Your task to perform on an android device: turn off translation in the chrome app Image 0: 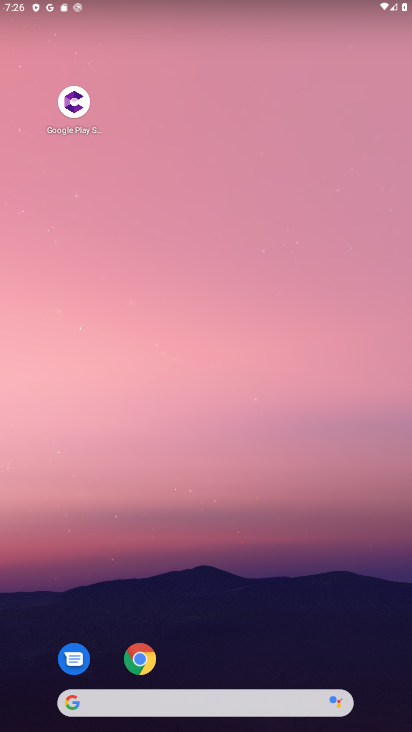
Step 0: click (140, 660)
Your task to perform on an android device: turn off translation in the chrome app Image 1: 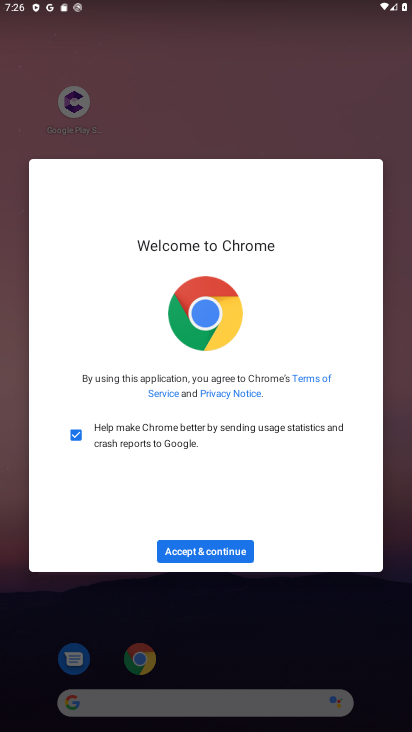
Step 1: click (212, 552)
Your task to perform on an android device: turn off translation in the chrome app Image 2: 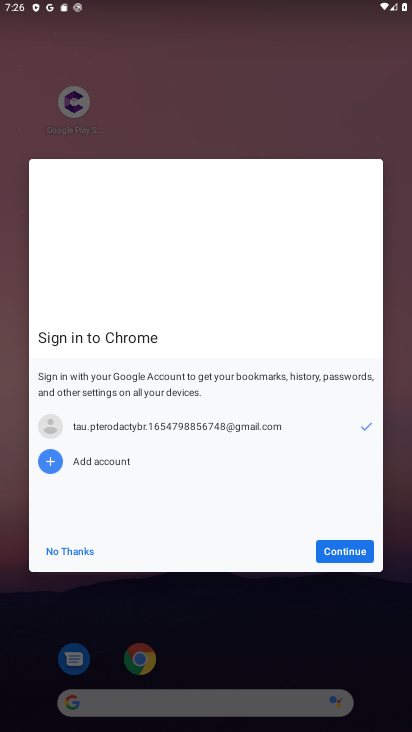
Step 2: click (341, 551)
Your task to perform on an android device: turn off translation in the chrome app Image 3: 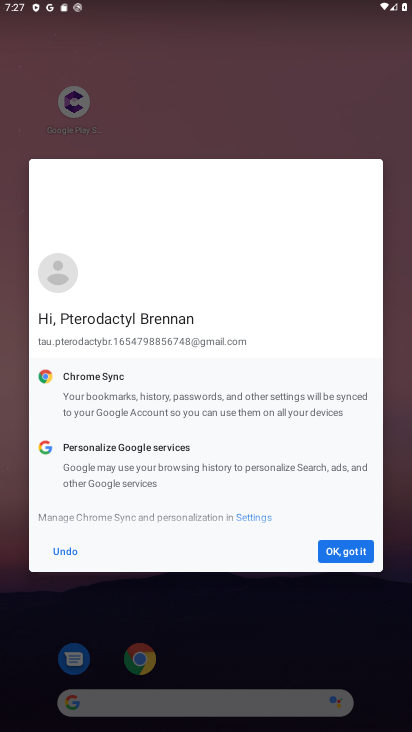
Step 3: click (351, 552)
Your task to perform on an android device: turn off translation in the chrome app Image 4: 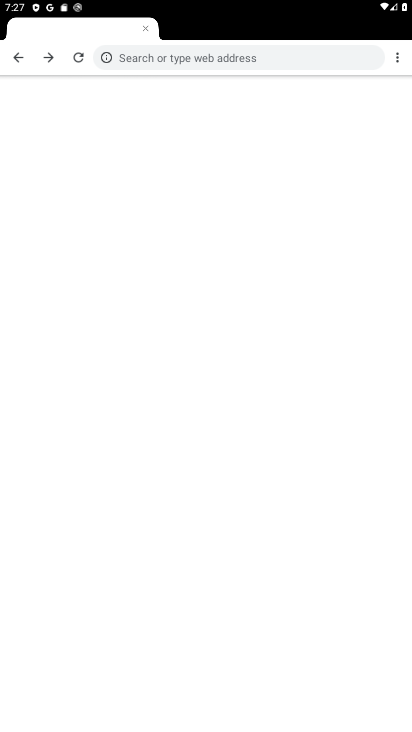
Step 4: click (351, 552)
Your task to perform on an android device: turn off translation in the chrome app Image 5: 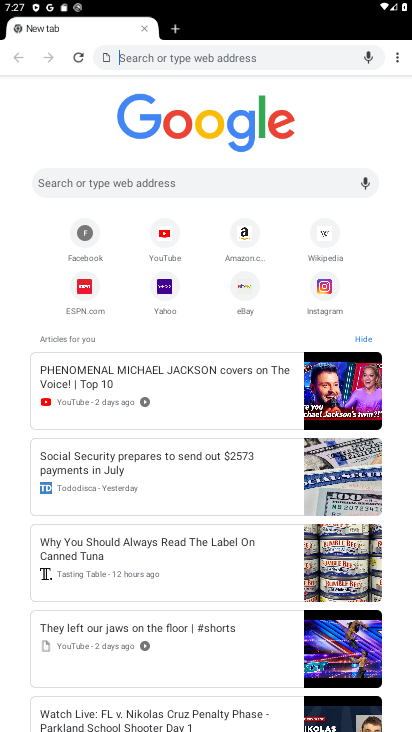
Step 5: click (398, 56)
Your task to perform on an android device: turn off translation in the chrome app Image 6: 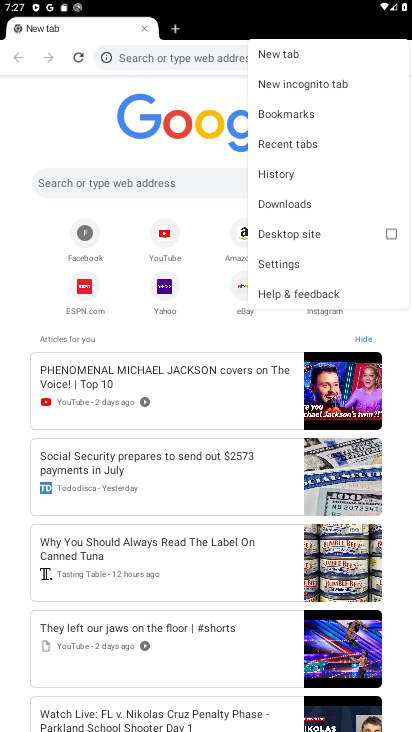
Step 6: click (289, 265)
Your task to perform on an android device: turn off translation in the chrome app Image 7: 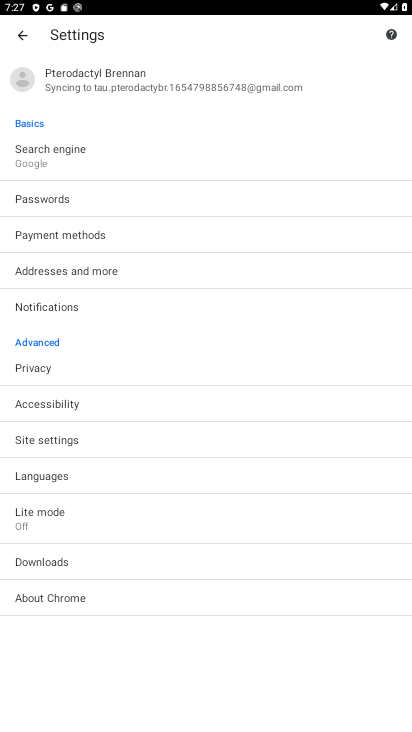
Step 7: click (45, 476)
Your task to perform on an android device: turn off translation in the chrome app Image 8: 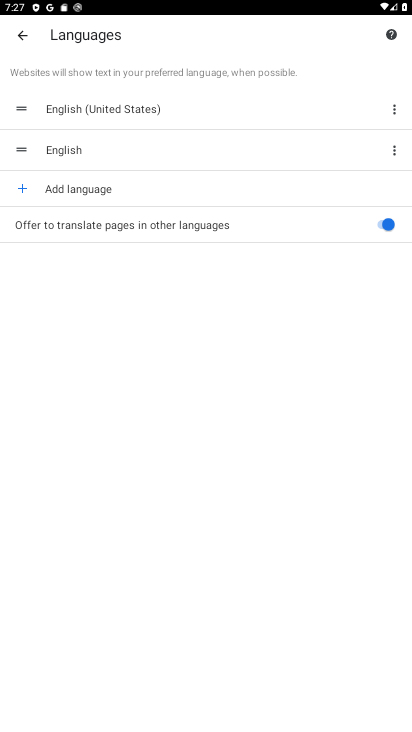
Step 8: click (382, 227)
Your task to perform on an android device: turn off translation in the chrome app Image 9: 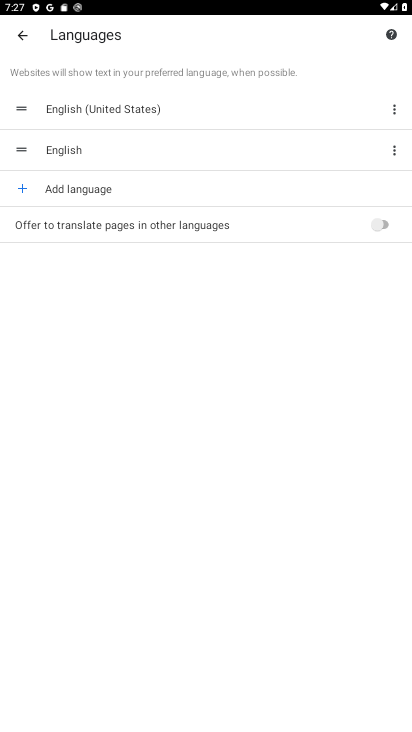
Step 9: task complete